Your task to perform on an android device: Go to CNN.com Image 0: 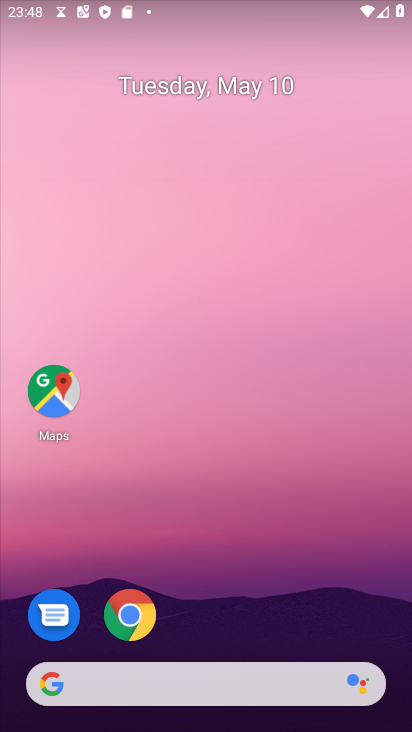
Step 0: click (129, 618)
Your task to perform on an android device: Go to CNN.com Image 1: 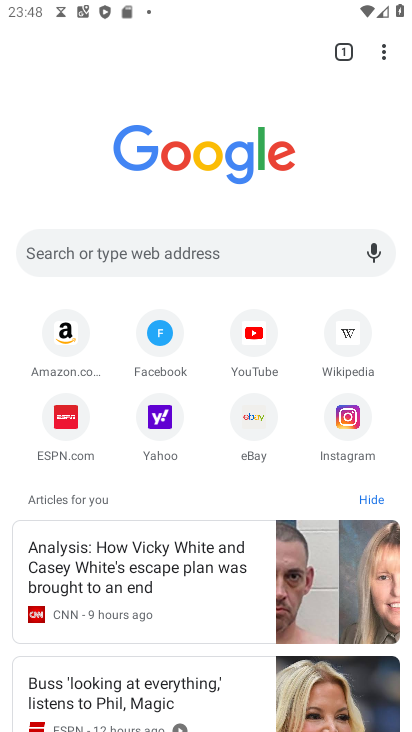
Step 1: click (147, 260)
Your task to perform on an android device: Go to CNN.com Image 2: 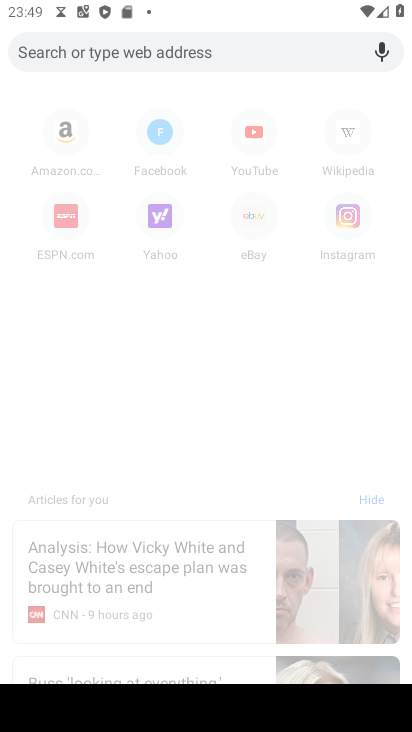
Step 2: type "CNN.com"
Your task to perform on an android device: Go to CNN.com Image 3: 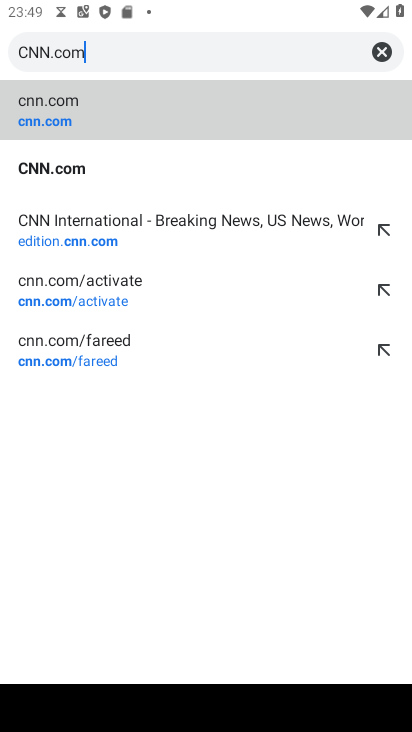
Step 3: click (55, 165)
Your task to perform on an android device: Go to CNN.com Image 4: 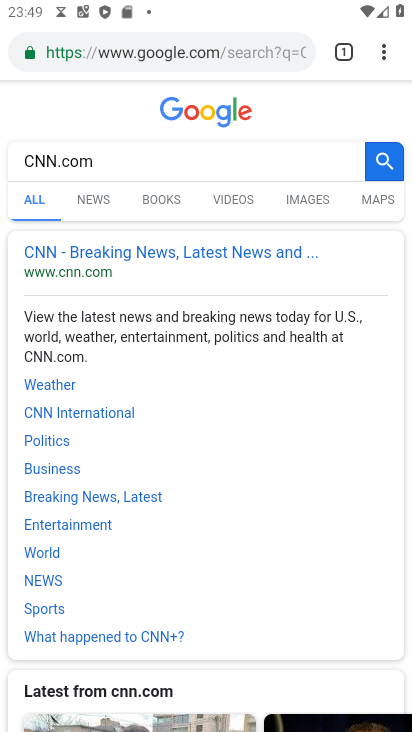
Step 4: click (118, 250)
Your task to perform on an android device: Go to CNN.com Image 5: 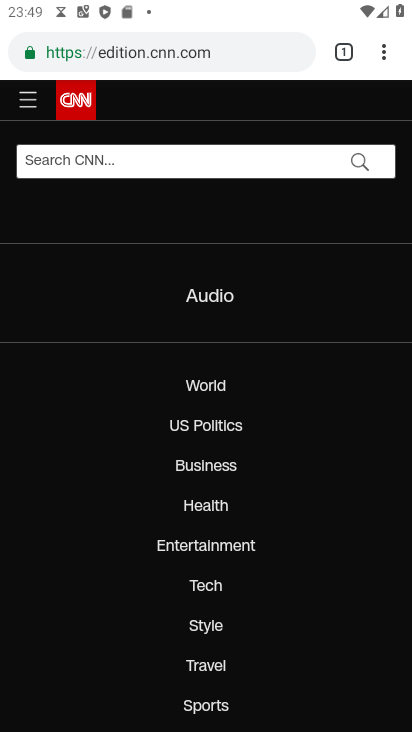
Step 5: task complete